Your task to perform on an android device: Toggle the flashlight Image 0: 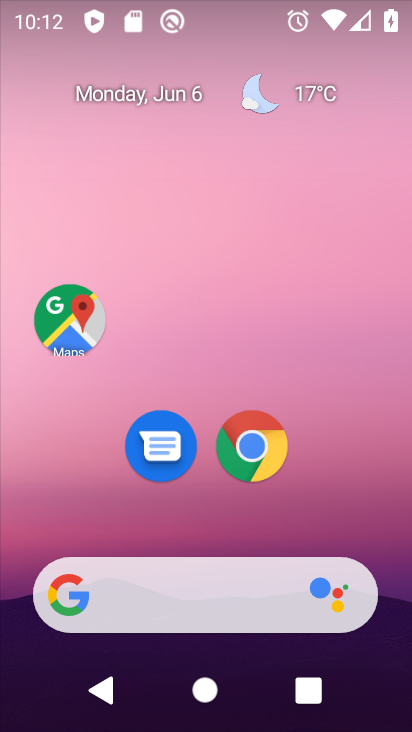
Step 0: drag from (197, 505) to (401, 185)
Your task to perform on an android device: Toggle the flashlight Image 1: 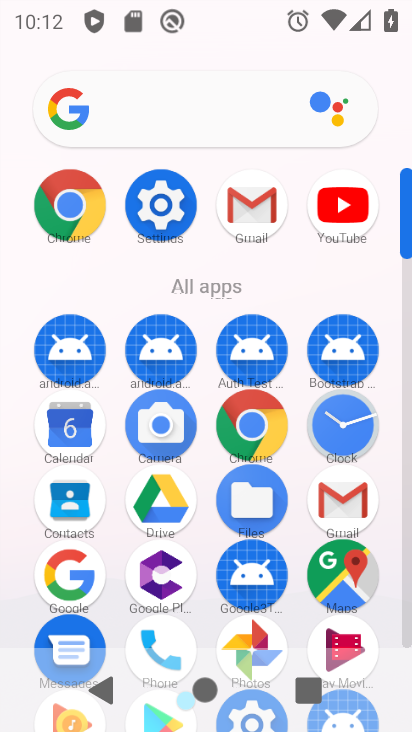
Step 1: click (169, 223)
Your task to perform on an android device: Toggle the flashlight Image 2: 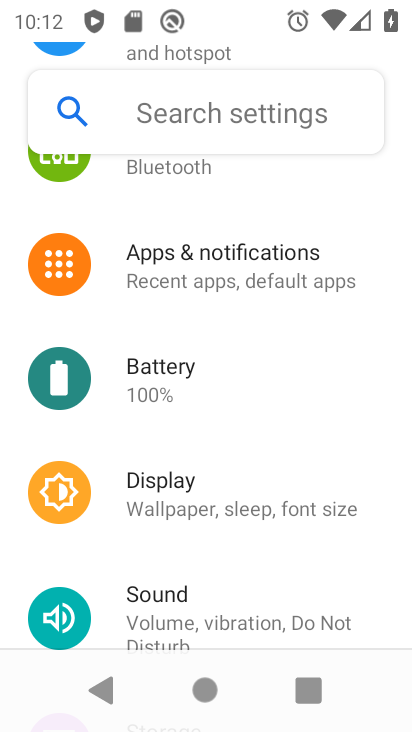
Step 2: task complete